Your task to perform on an android device: Go to Android settings Image 0: 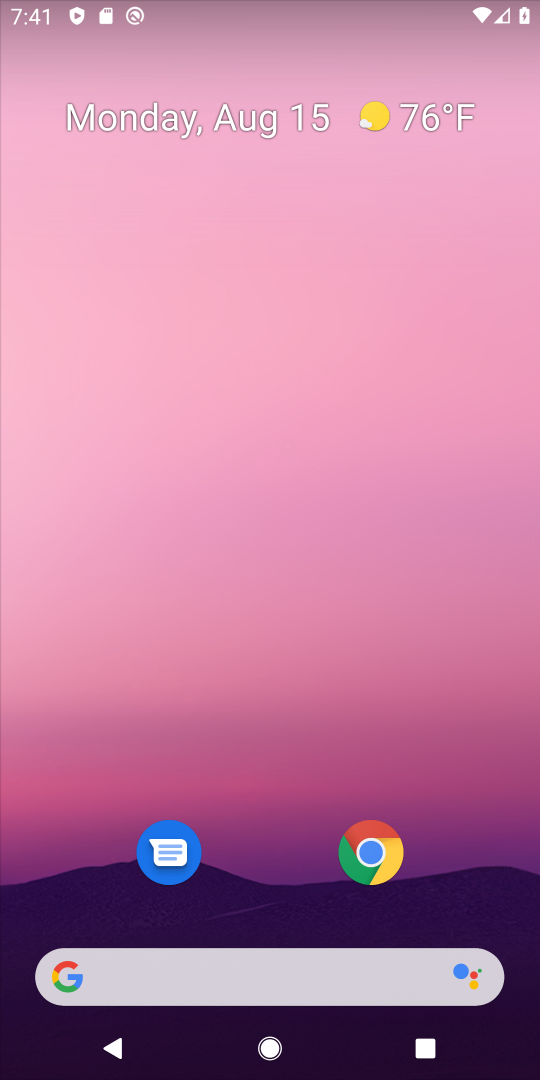
Step 0: drag from (252, 907) to (204, 124)
Your task to perform on an android device: Go to Android settings Image 1: 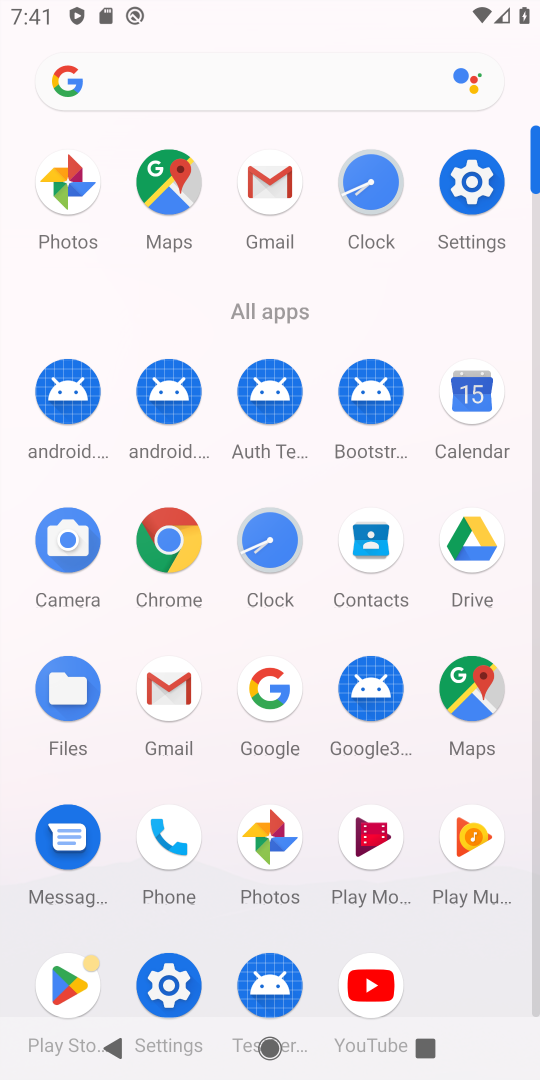
Step 1: click (468, 180)
Your task to perform on an android device: Go to Android settings Image 2: 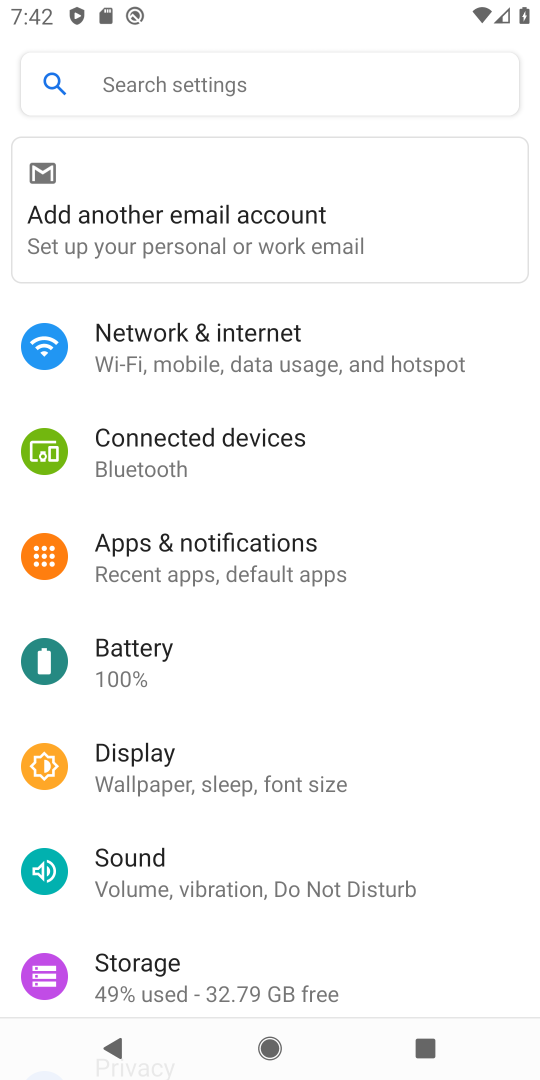
Step 2: task complete